Your task to perform on an android device: empty trash in the gmail app Image 0: 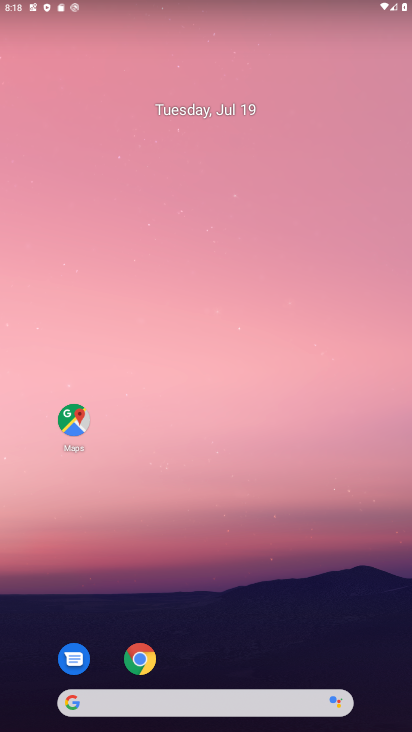
Step 0: drag from (156, 690) to (185, 305)
Your task to perform on an android device: empty trash in the gmail app Image 1: 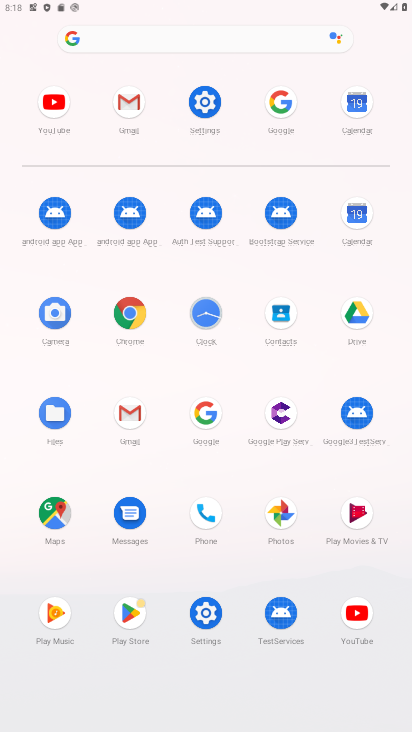
Step 1: click (124, 415)
Your task to perform on an android device: empty trash in the gmail app Image 2: 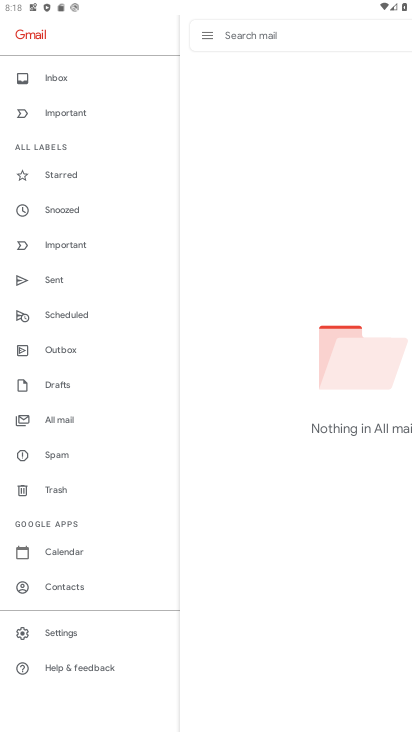
Step 2: click (50, 494)
Your task to perform on an android device: empty trash in the gmail app Image 3: 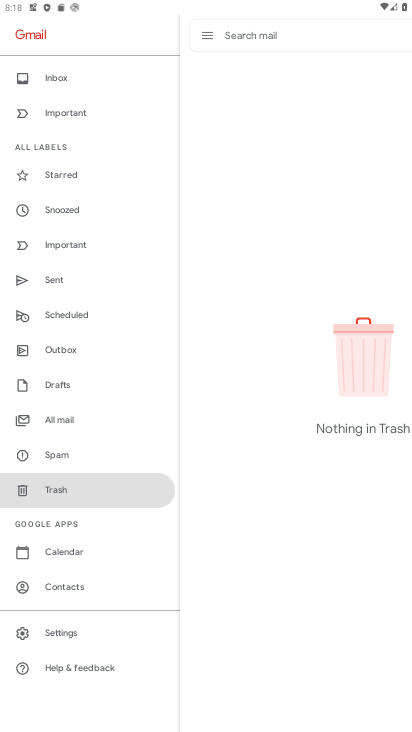
Step 3: task complete